Your task to perform on an android device: change timer sound Image 0: 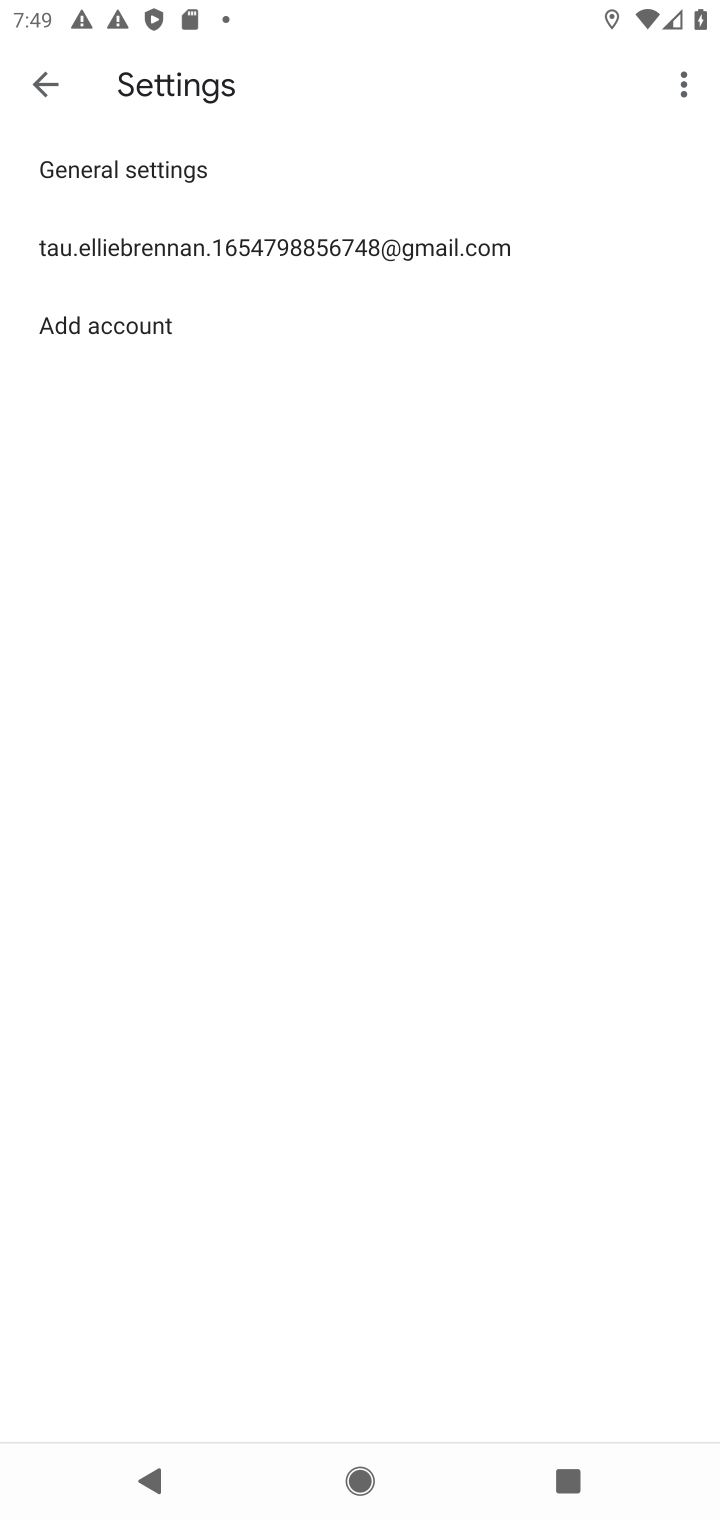
Step 0: press home button
Your task to perform on an android device: change timer sound Image 1: 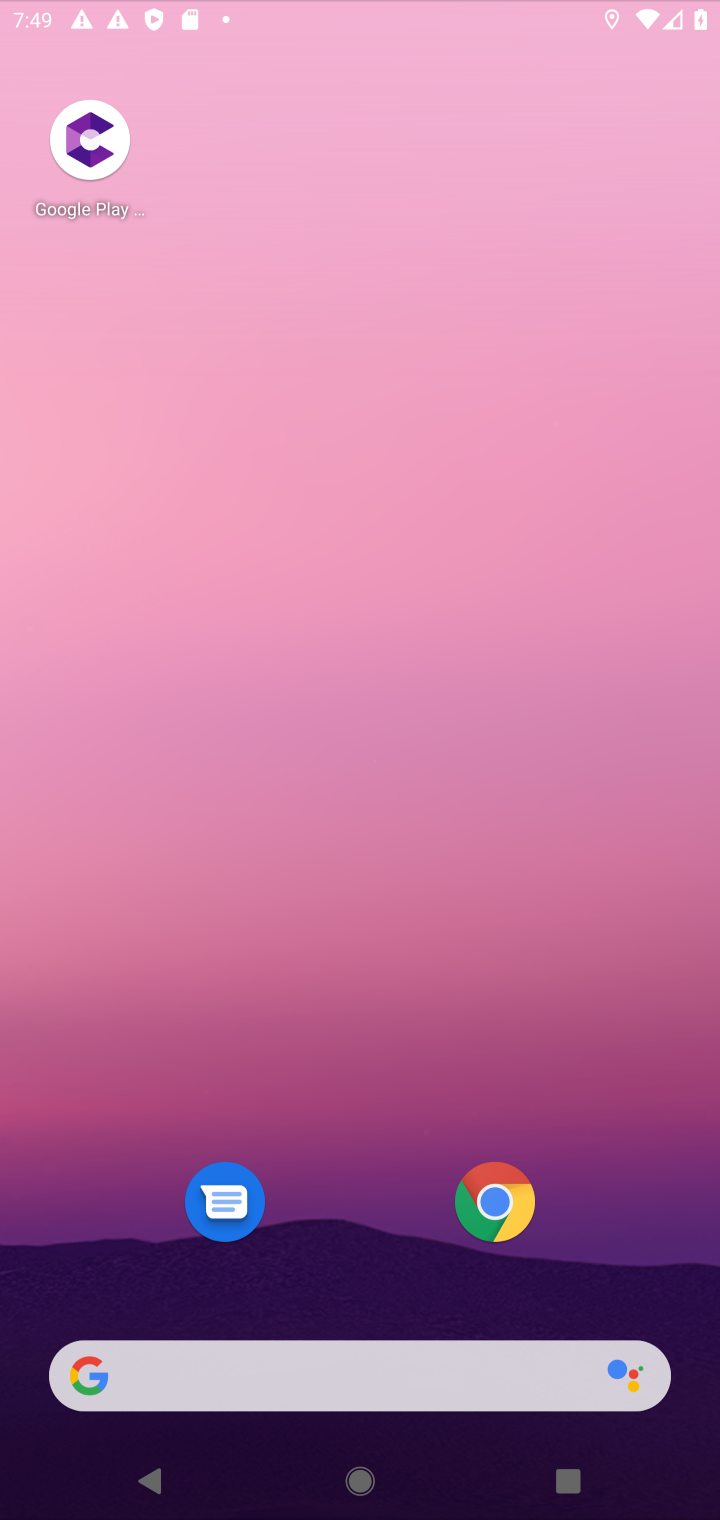
Step 1: drag from (690, 1312) to (379, 64)
Your task to perform on an android device: change timer sound Image 2: 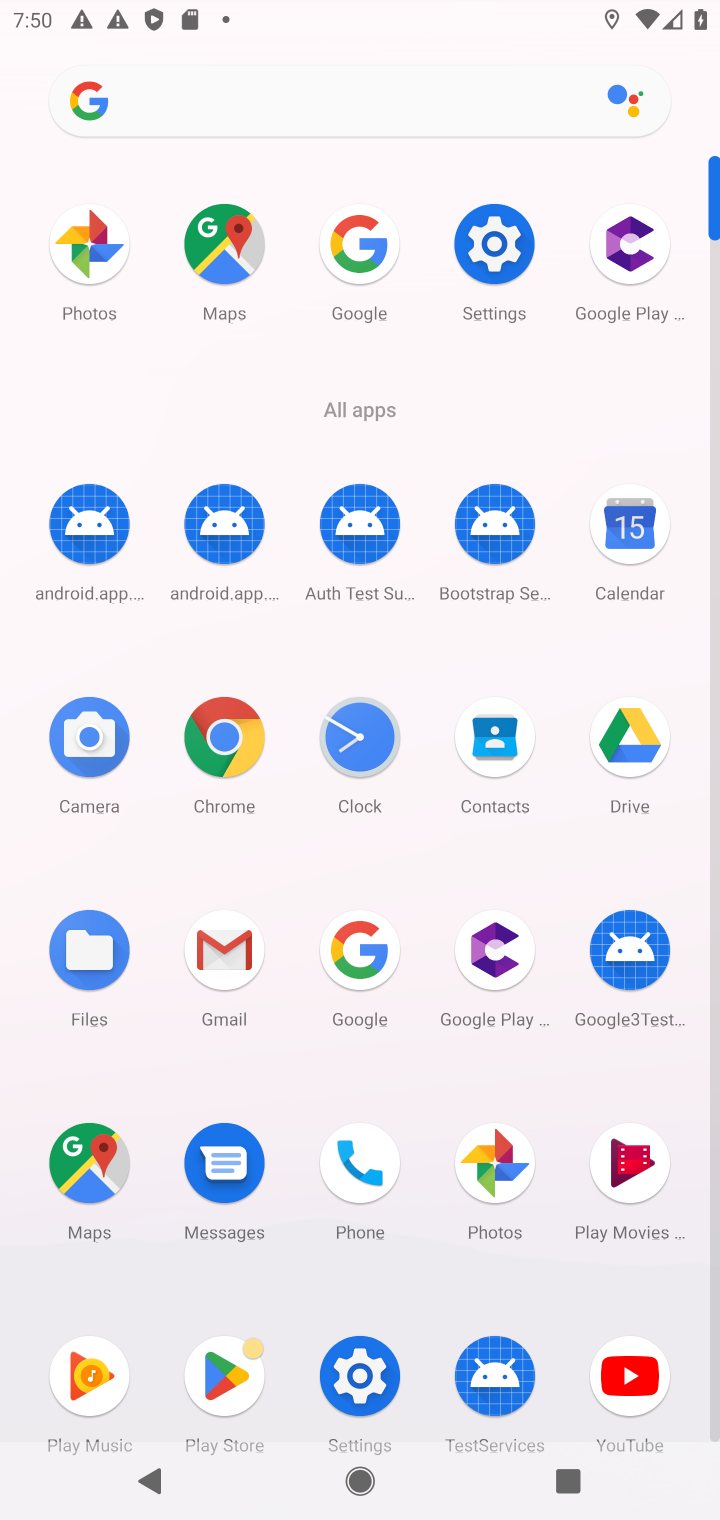
Step 2: click (369, 733)
Your task to perform on an android device: change timer sound Image 3: 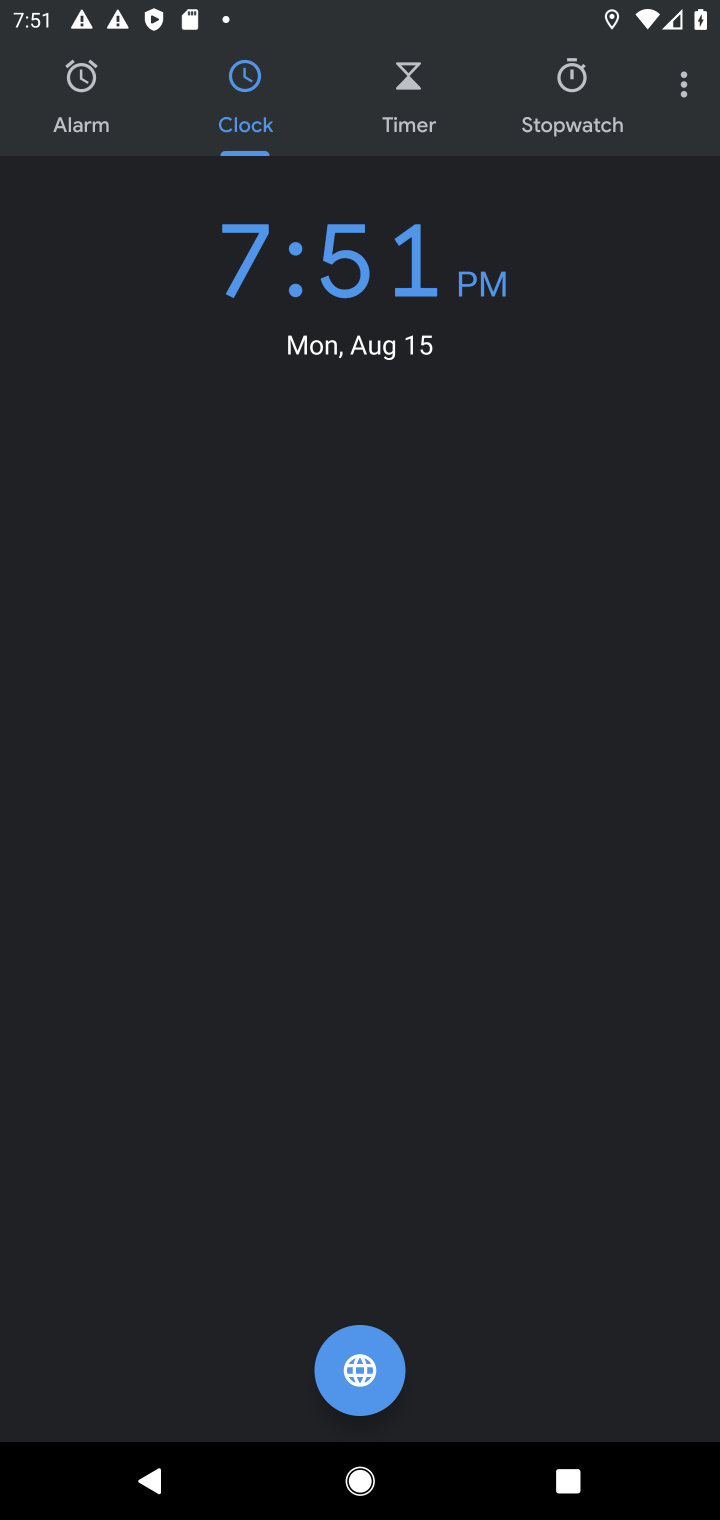
Step 3: click (676, 69)
Your task to perform on an android device: change timer sound Image 4: 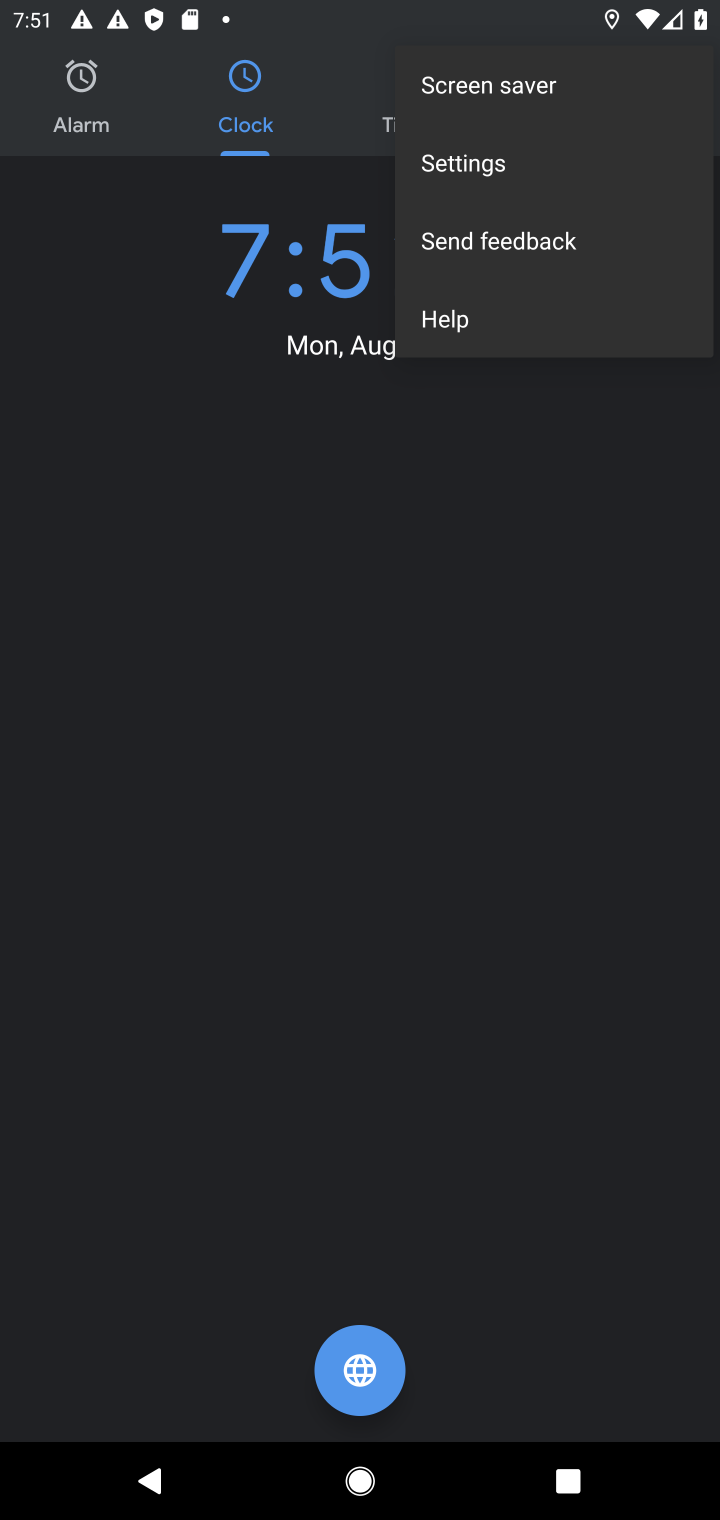
Step 4: click (421, 192)
Your task to perform on an android device: change timer sound Image 5: 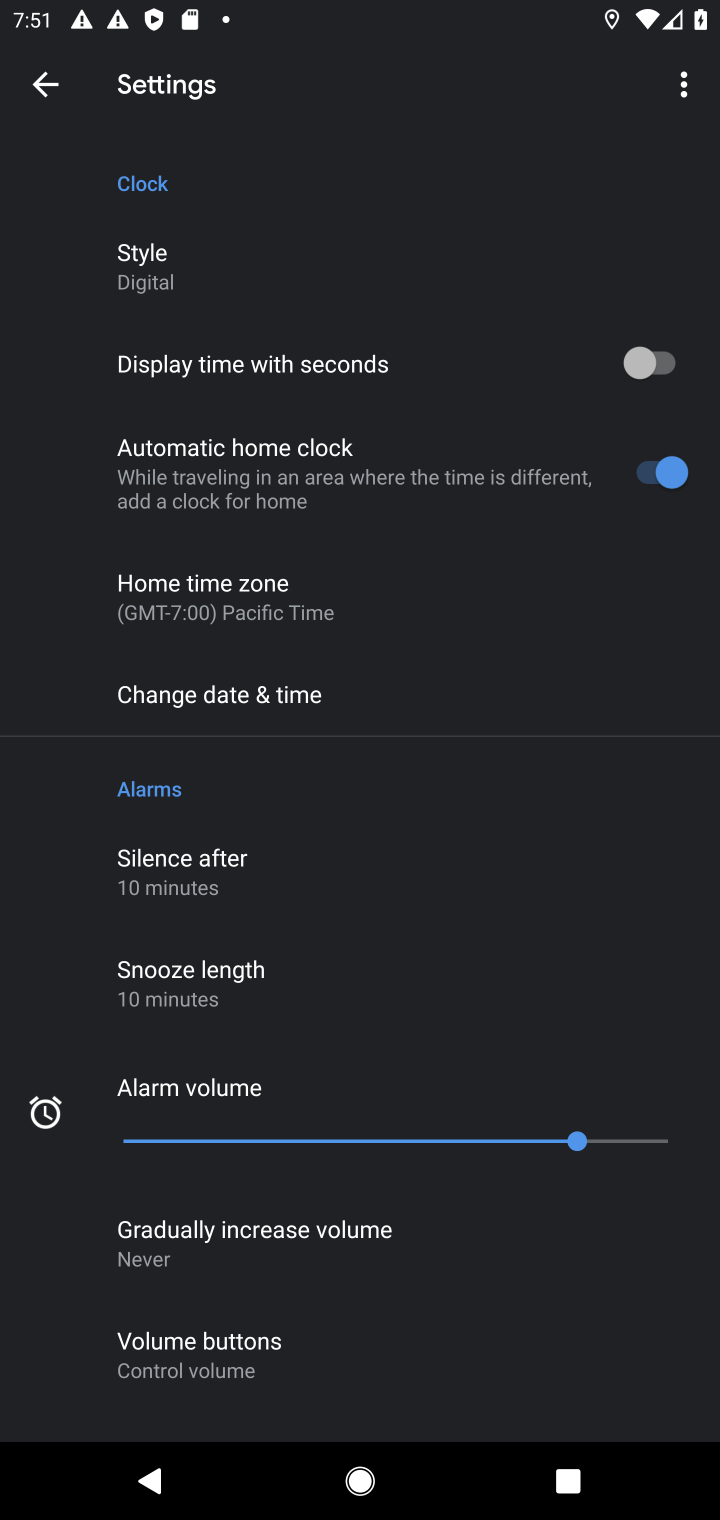
Step 5: drag from (303, 1078) to (294, 306)
Your task to perform on an android device: change timer sound Image 6: 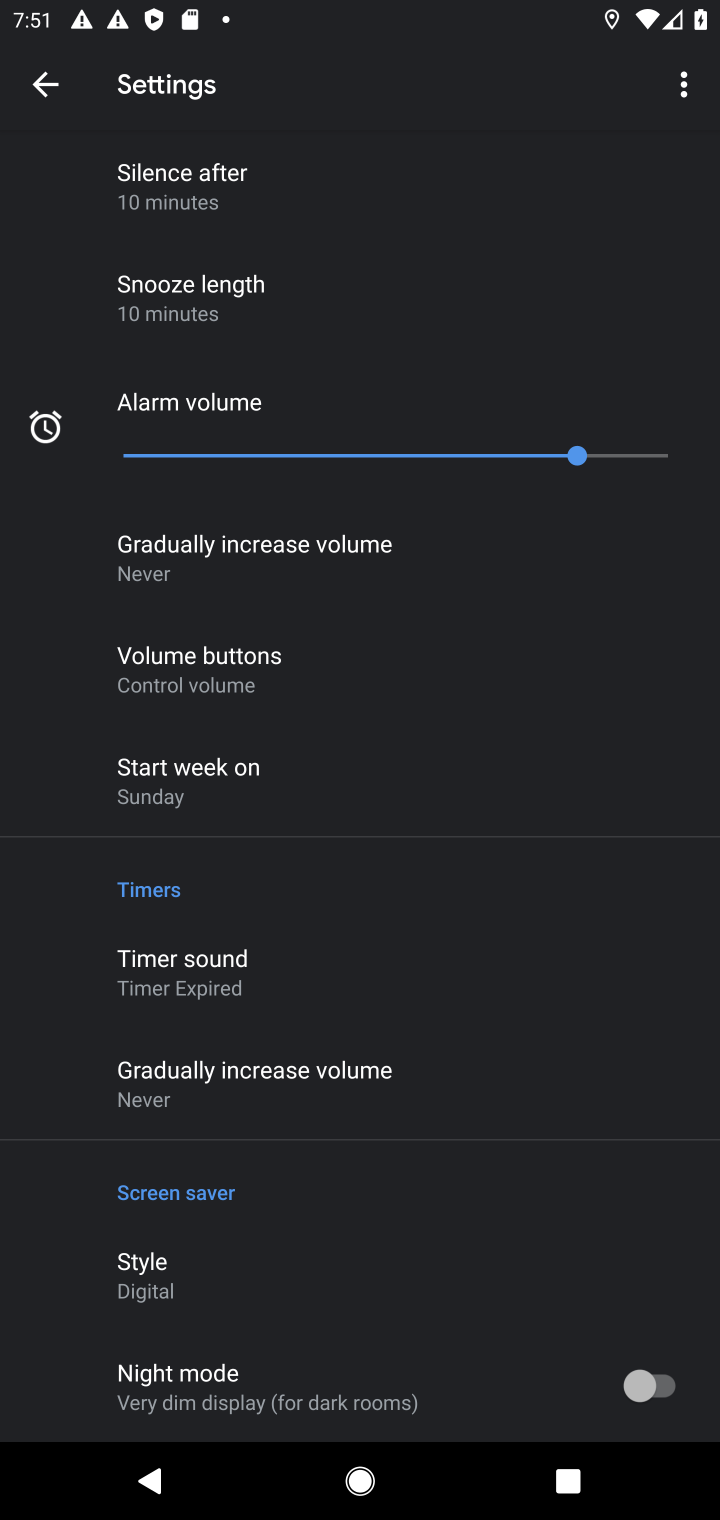
Step 6: click (253, 973)
Your task to perform on an android device: change timer sound Image 7: 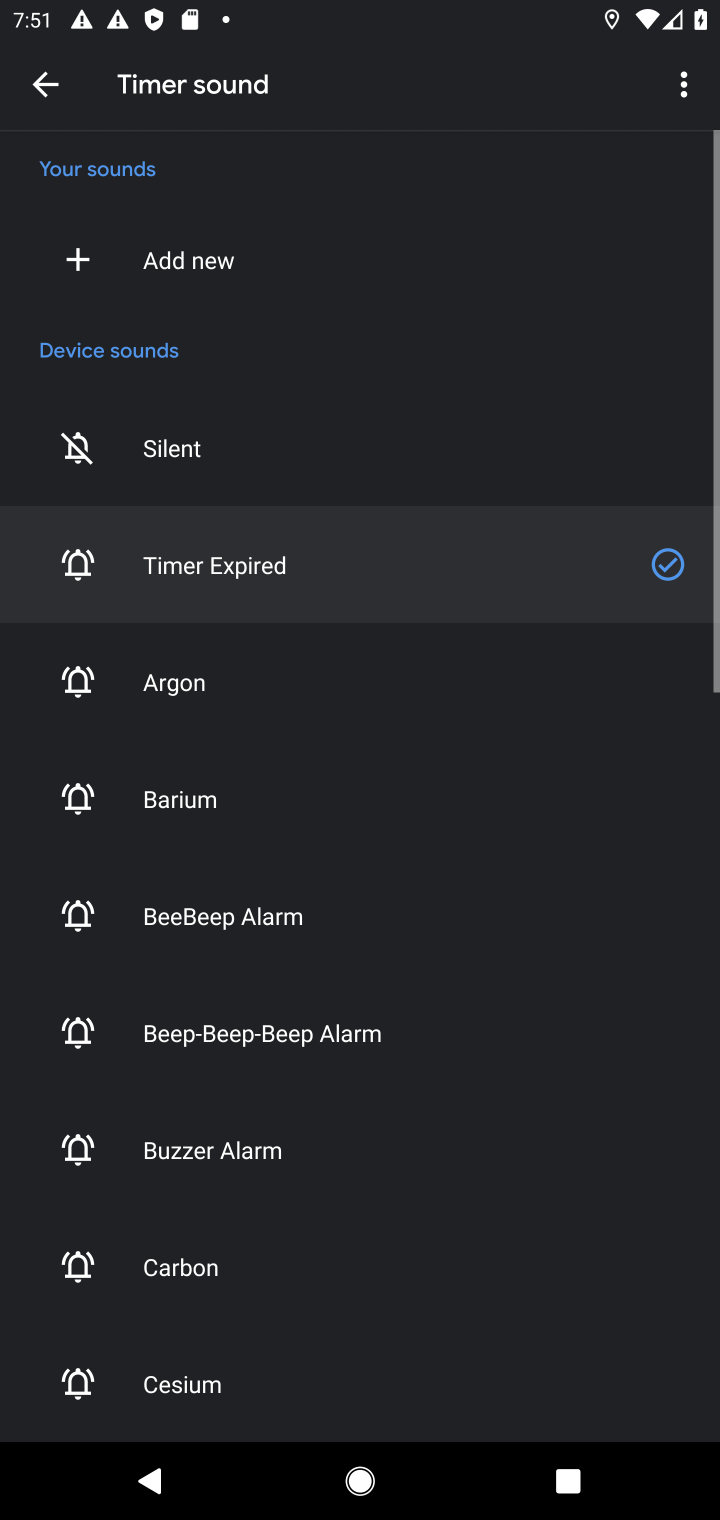
Step 7: click (240, 702)
Your task to perform on an android device: change timer sound Image 8: 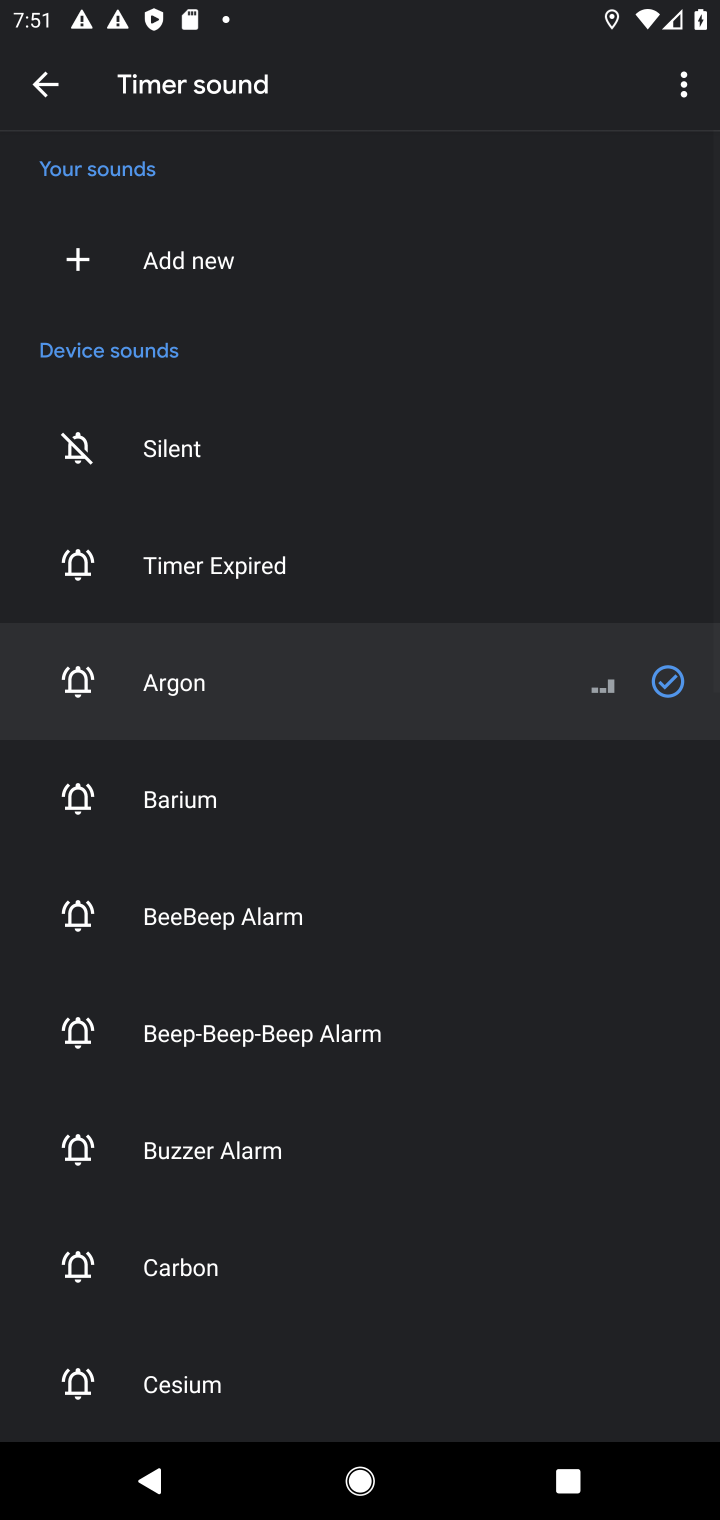
Step 8: task complete